Your task to perform on an android device: Add lg ultragear to the cart on bestbuy Image 0: 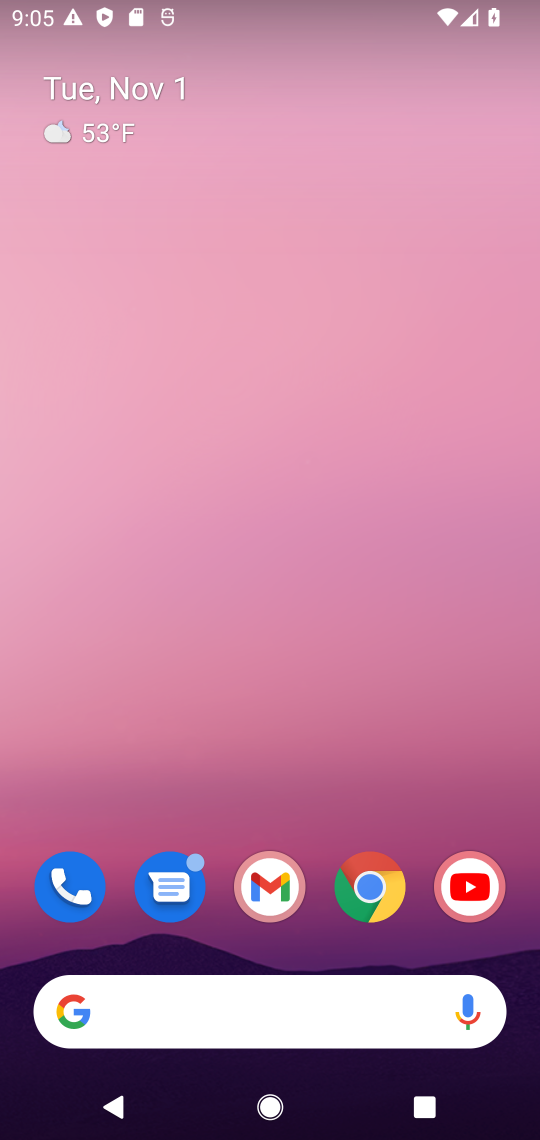
Step 0: drag from (291, 994) to (308, 305)
Your task to perform on an android device: Add lg ultragear to the cart on bestbuy Image 1: 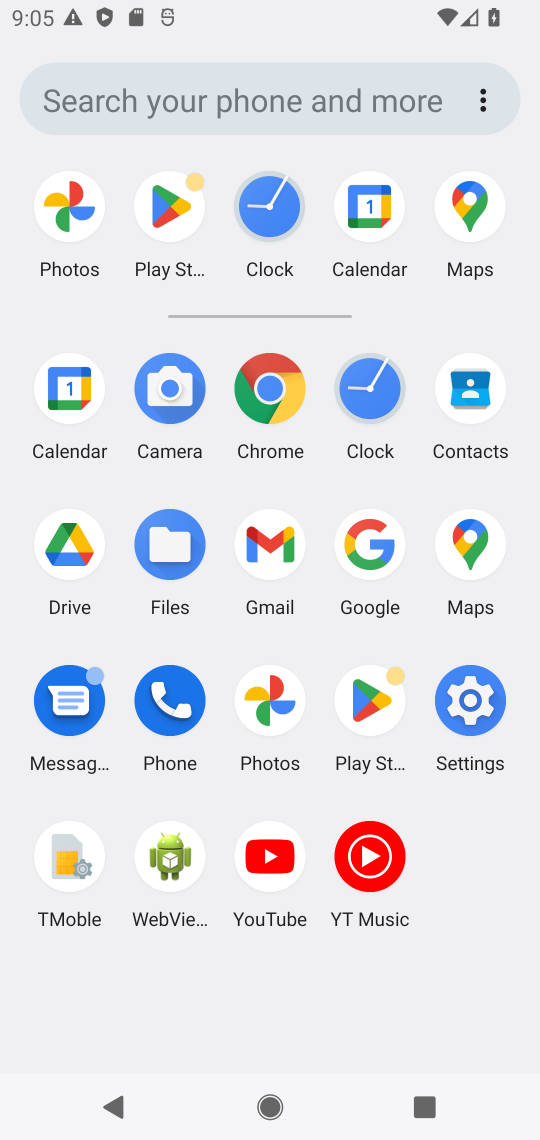
Step 1: click (366, 533)
Your task to perform on an android device: Add lg ultragear to the cart on bestbuy Image 2: 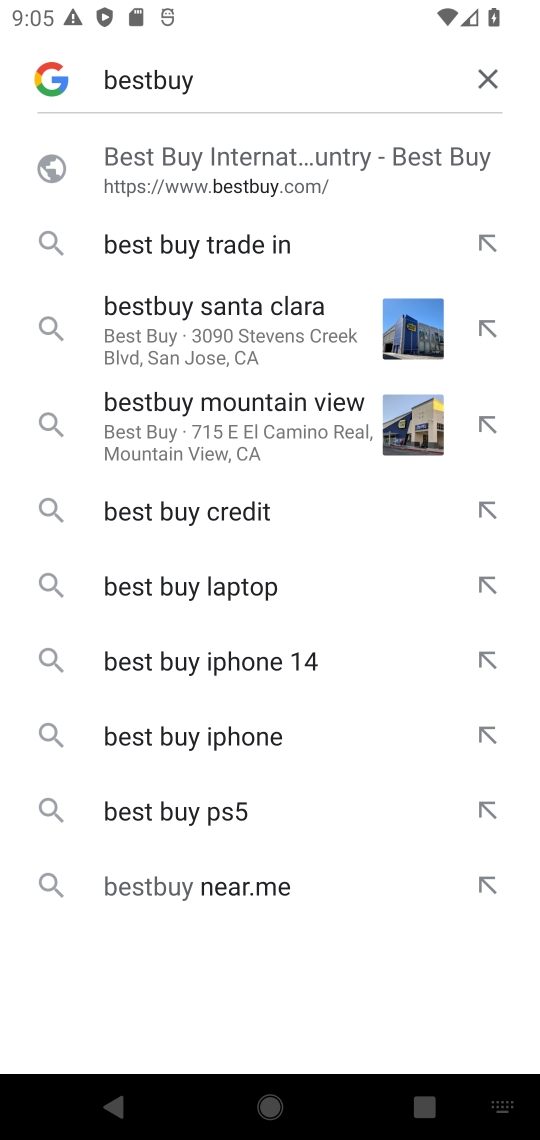
Step 2: click (476, 76)
Your task to perform on an android device: Add lg ultragear to the cart on bestbuy Image 3: 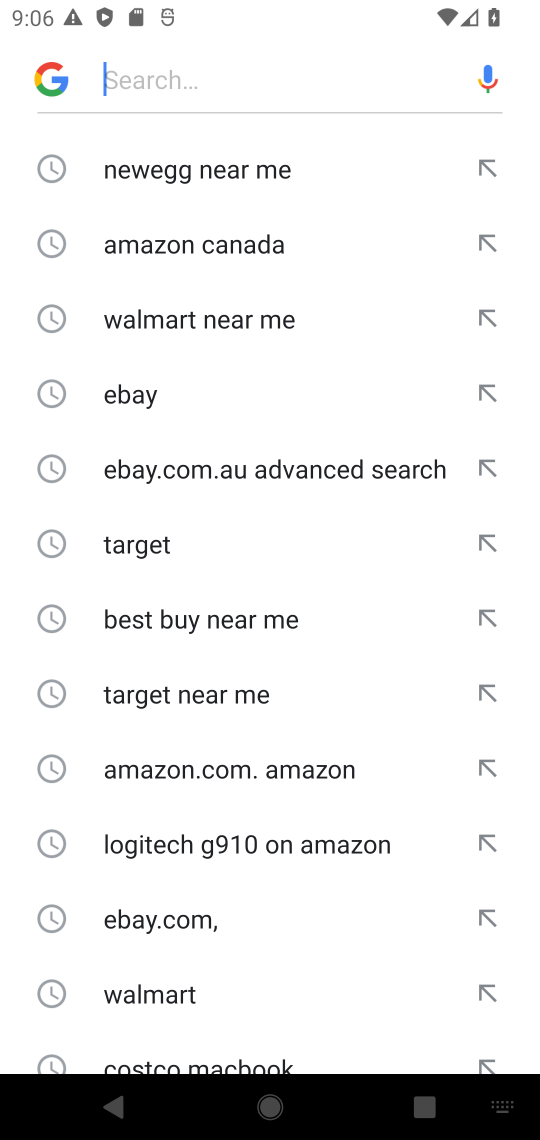
Step 3: click (213, 603)
Your task to perform on an android device: Add lg ultragear to the cart on bestbuy Image 4: 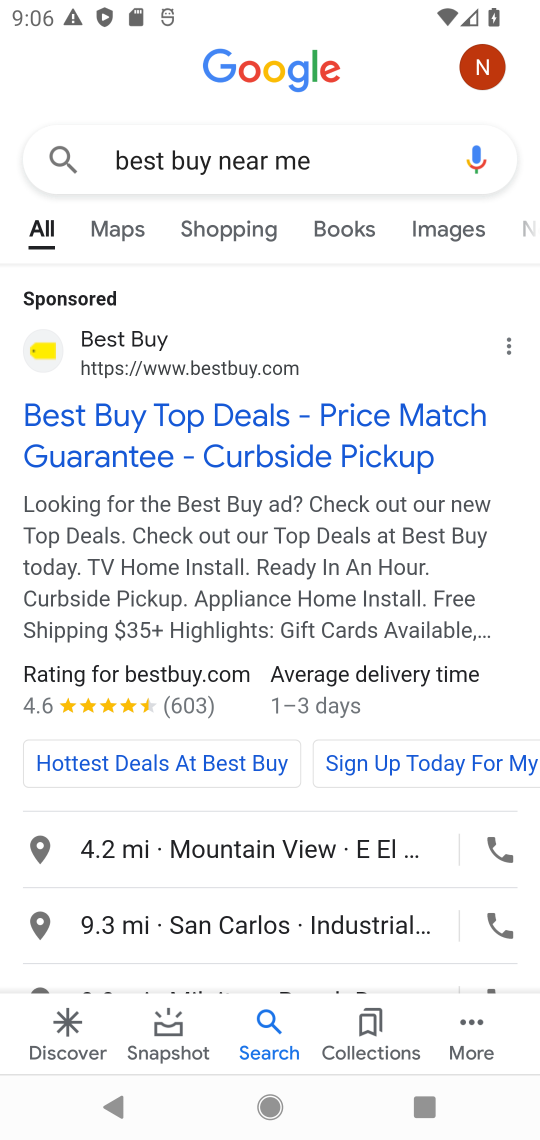
Step 4: click (32, 348)
Your task to perform on an android device: Add lg ultragear to the cart on bestbuy Image 5: 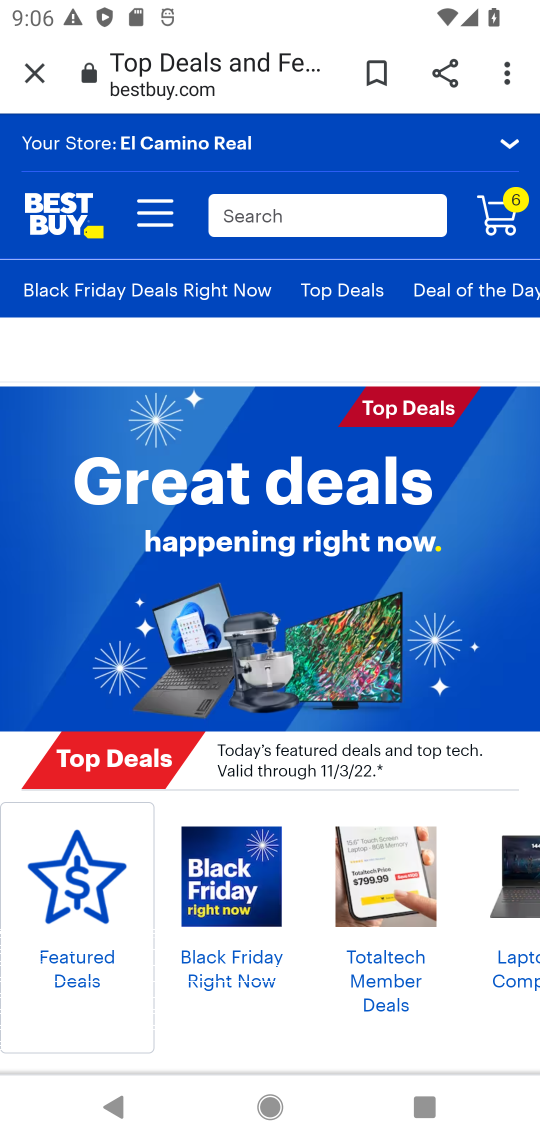
Step 5: click (332, 213)
Your task to perform on an android device: Add lg ultragear to the cart on bestbuy Image 6: 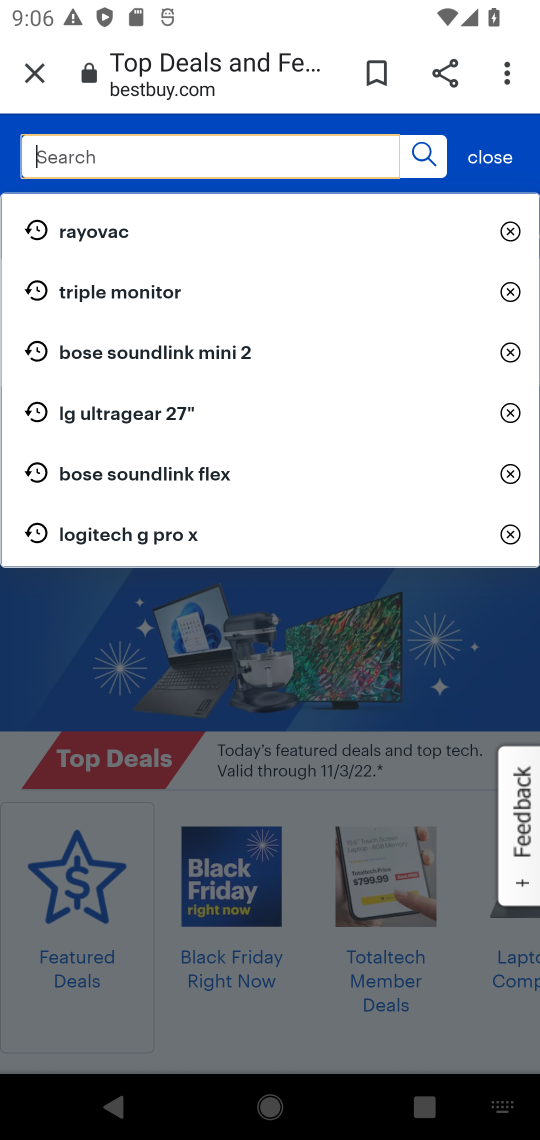
Step 6: click (293, 153)
Your task to perform on an android device: Add lg ultragear to the cart on bestbuy Image 7: 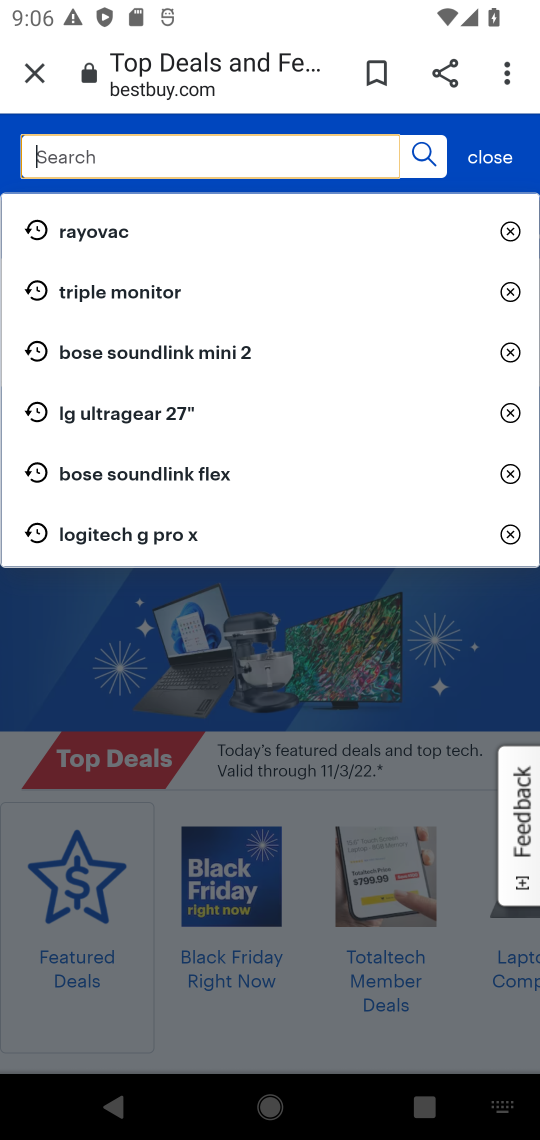
Step 7: type " lg ultragear "
Your task to perform on an android device: Add lg ultragear to the cart on bestbuy Image 8: 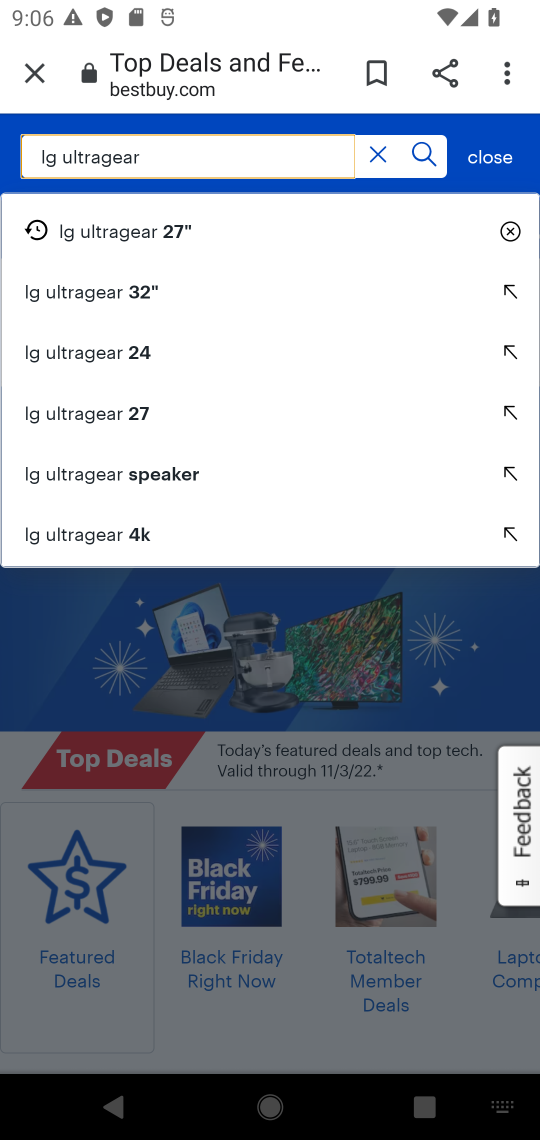
Step 8: click (103, 228)
Your task to perform on an android device: Add lg ultragear to the cart on bestbuy Image 9: 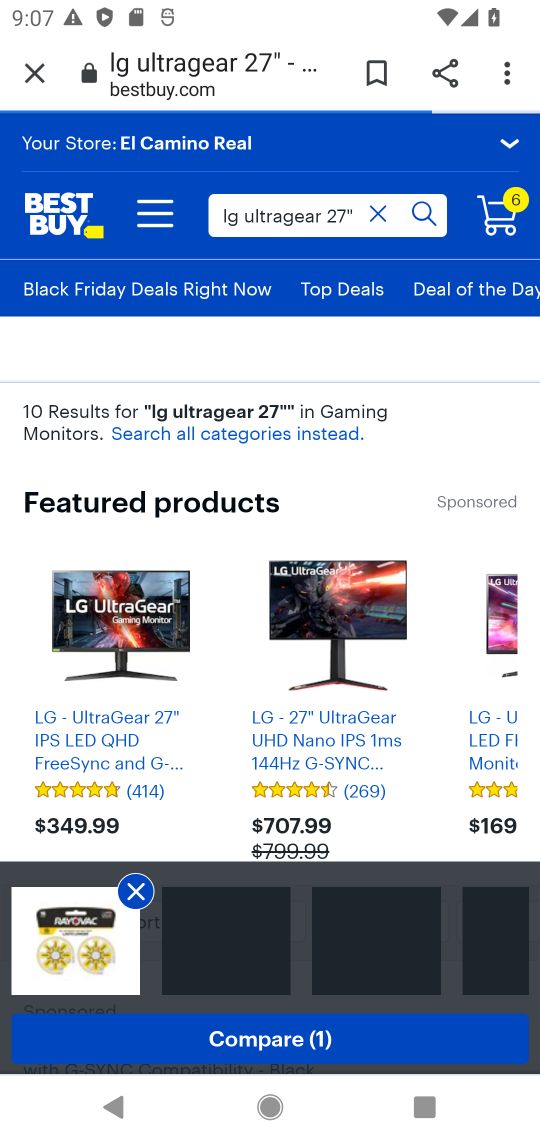
Step 9: drag from (320, 997) to (336, 401)
Your task to perform on an android device: Add lg ultragear to the cart on bestbuy Image 10: 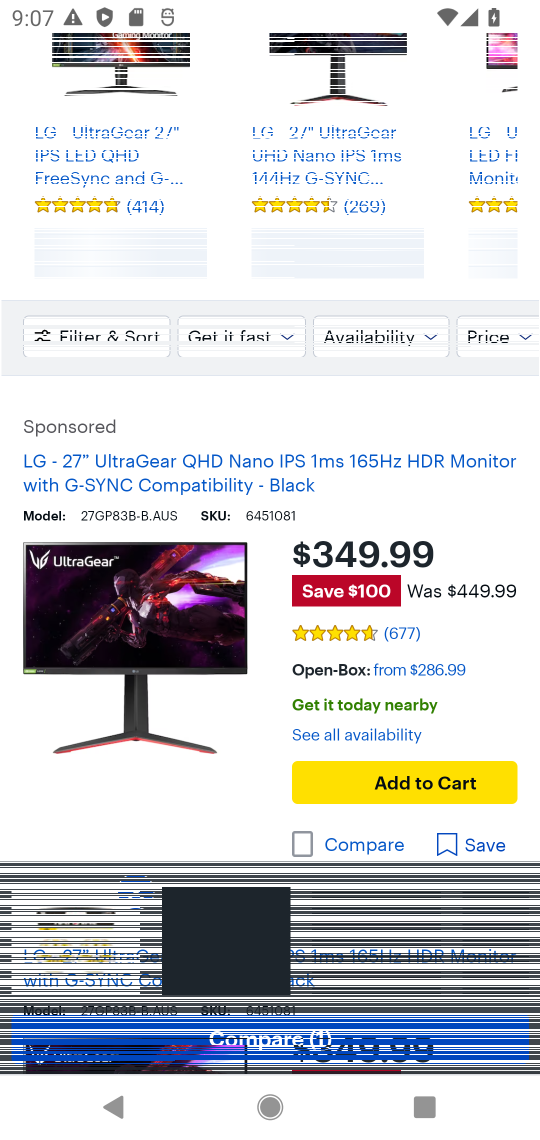
Step 10: click (391, 781)
Your task to perform on an android device: Add lg ultragear to the cart on bestbuy Image 11: 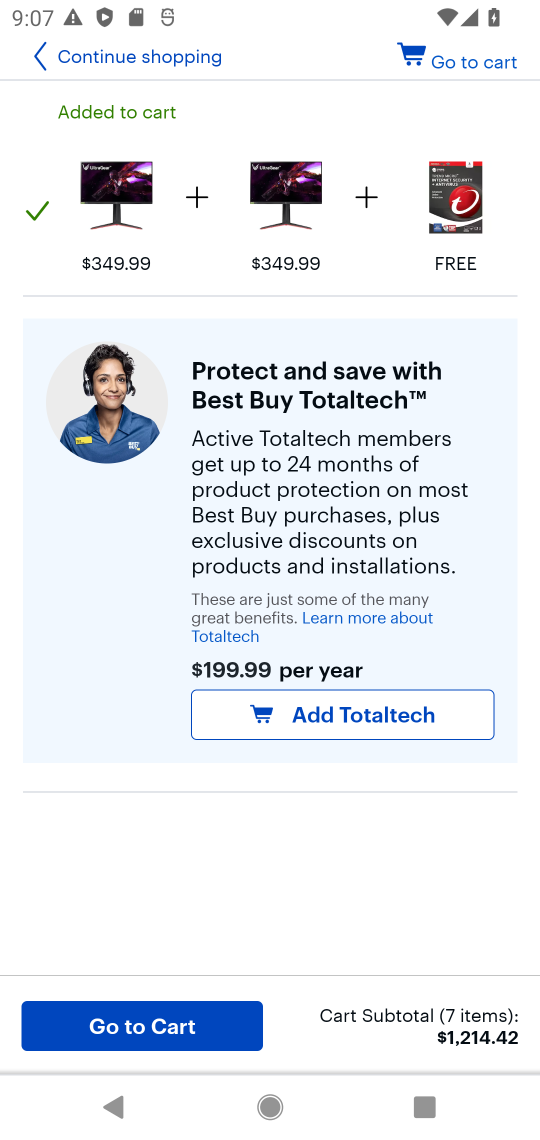
Step 11: drag from (227, 382) to (268, 833)
Your task to perform on an android device: Add lg ultragear to the cart on bestbuy Image 12: 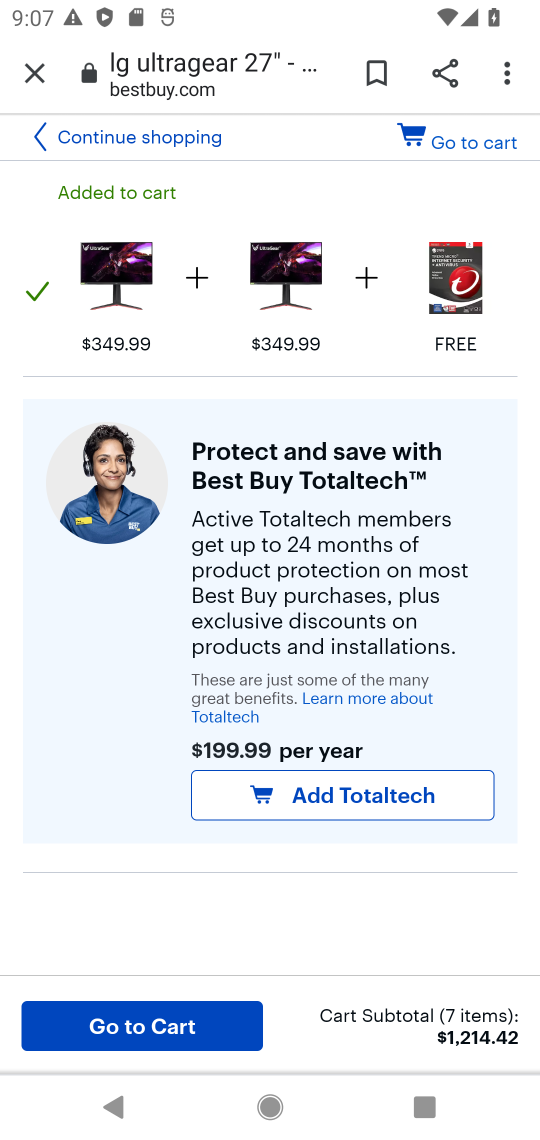
Step 12: press back button
Your task to perform on an android device: Add lg ultragear to the cart on bestbuy Image 13: 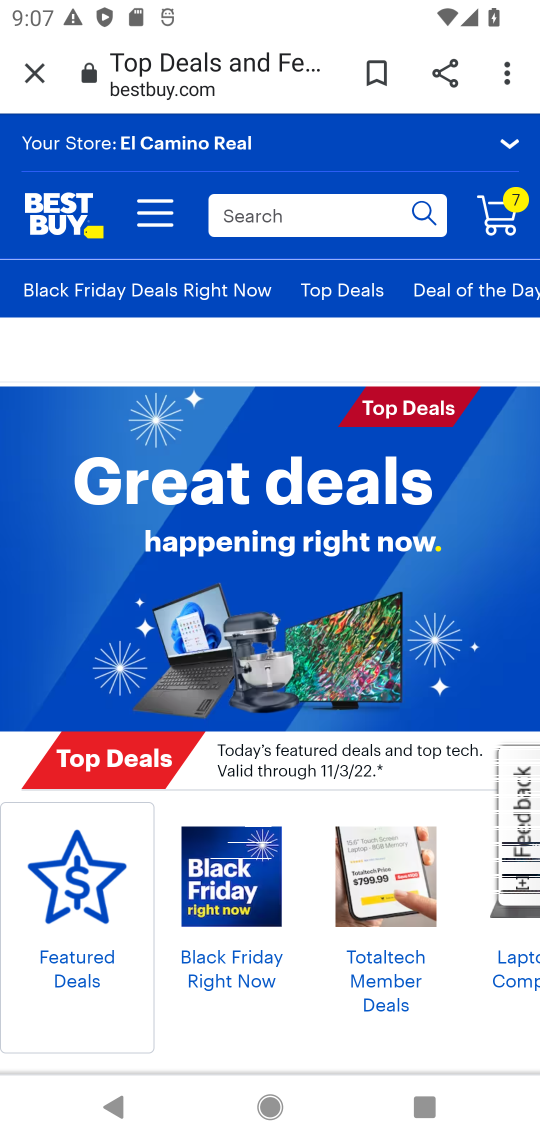
Step 13: click (365, 210)
Your task to perform on an android device: Add lg ultragear to the cart on bestbuy Image 14: 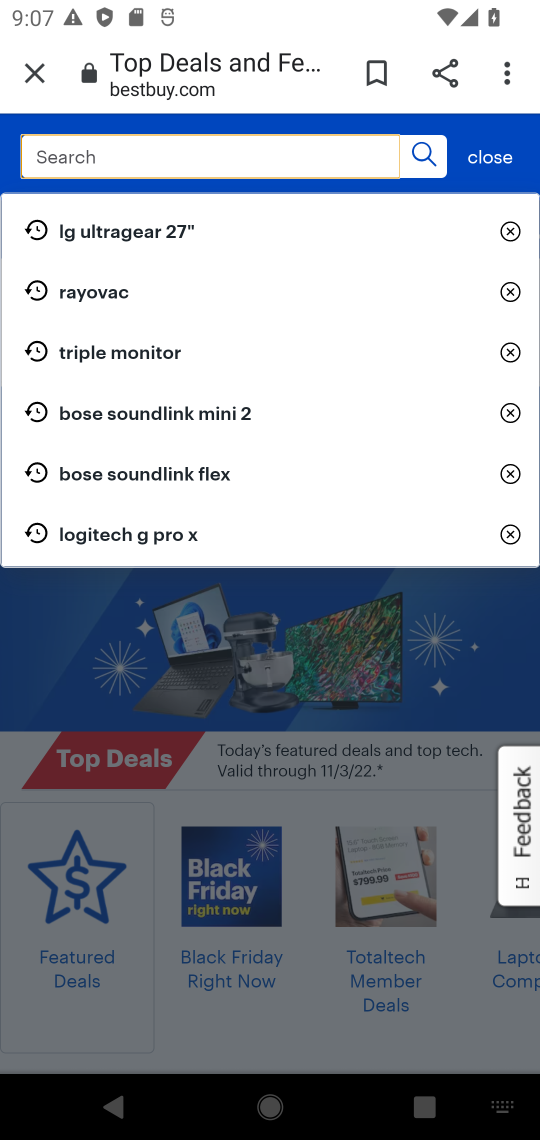
Step 14: click (91, 227)
Your task to perform on an android device: Add lg ultragear to the cart on bestbuy Image 15: 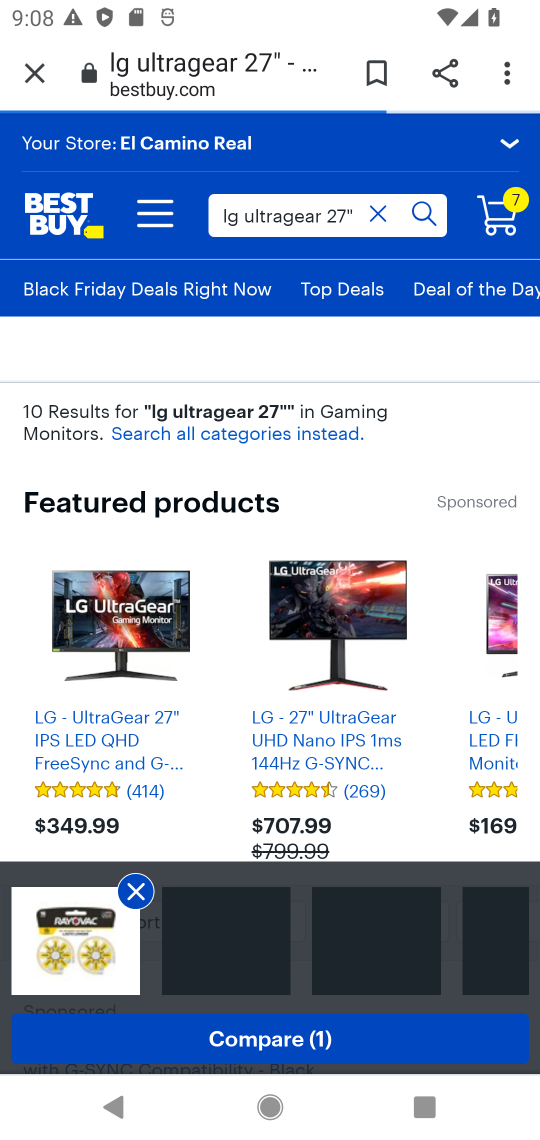
Step 15: click (113, 652)
Your task to perform on an android device: Add lg ultragear to the cart on bestbuy Image 16: 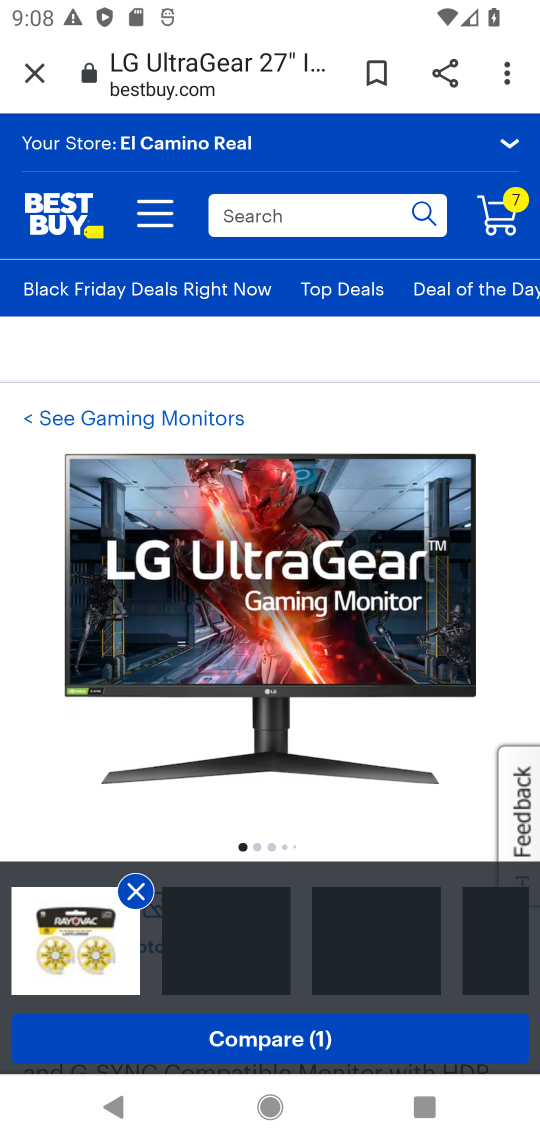
Step 16: click (125, 900)
Your task to perform on an android device: Add lg ultragear to the cart on bestbuy Image 17: 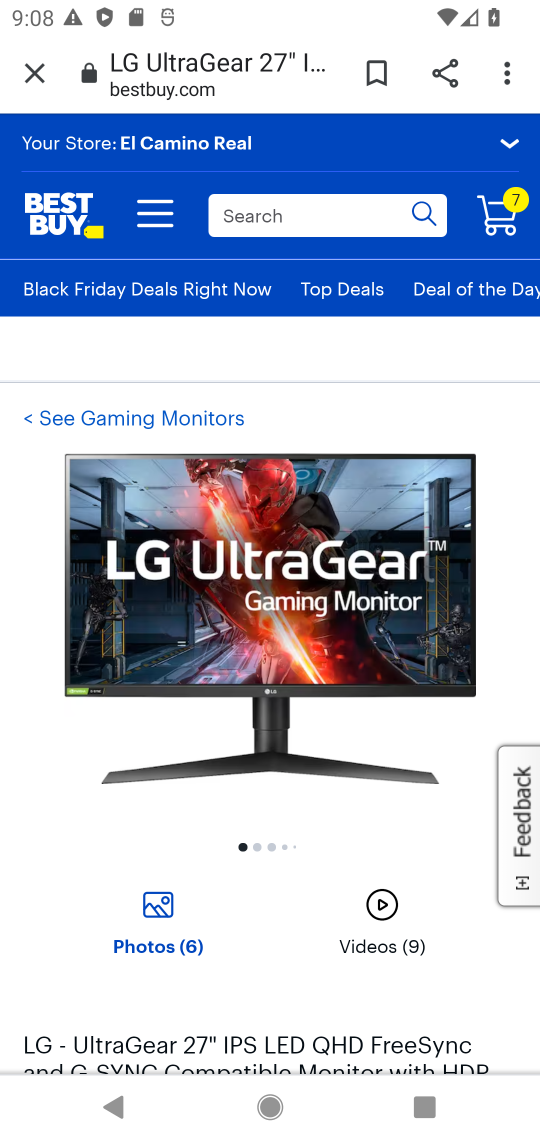
Step 17: drag from (312, 799) to (384, 308)
Your task to perform on an android device: Add lg ultragear to the cart on bestbuy Image 18: 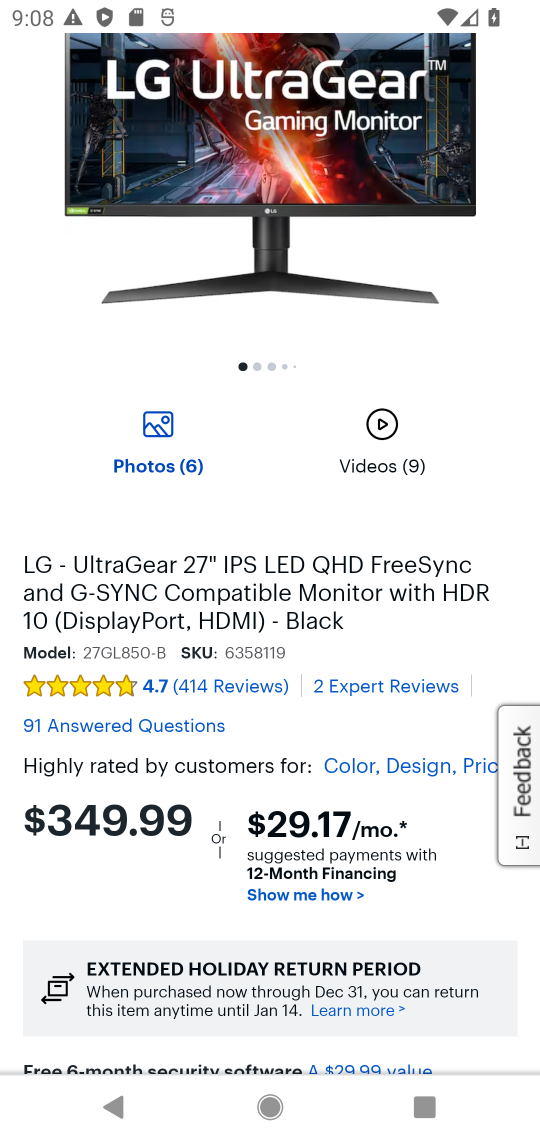
Step 18: drag from (292, 912) to (323, 481)
Your task to perform on an android device: Add lg ultragear to the cart on bestbuy Image 19: 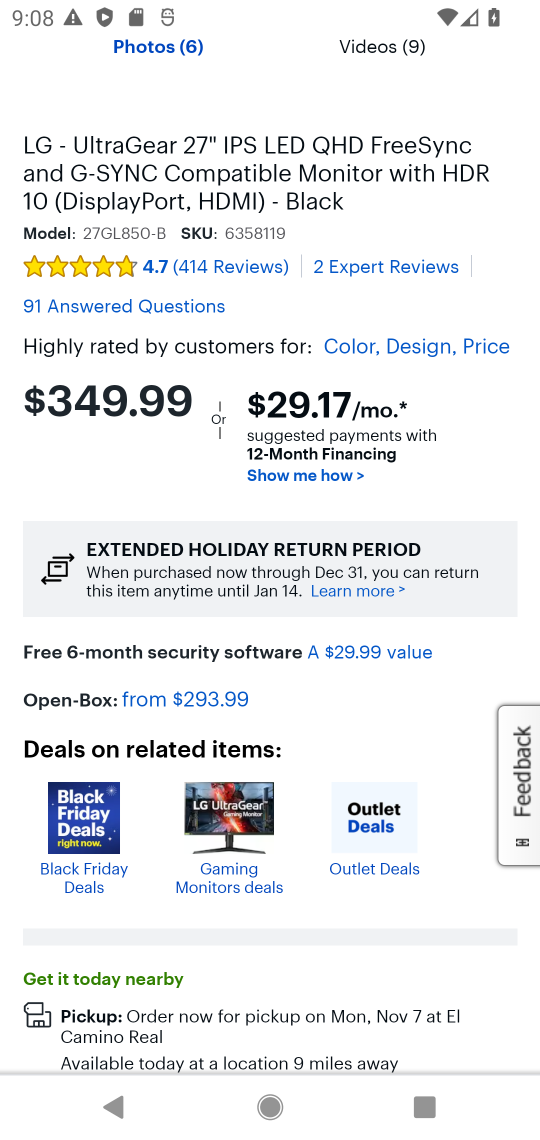
Step 19: drag from (323, 944) to (397, 162)
Your task to perform on an android device: Add lg ultragear to the cart on bestbuy Image 20: 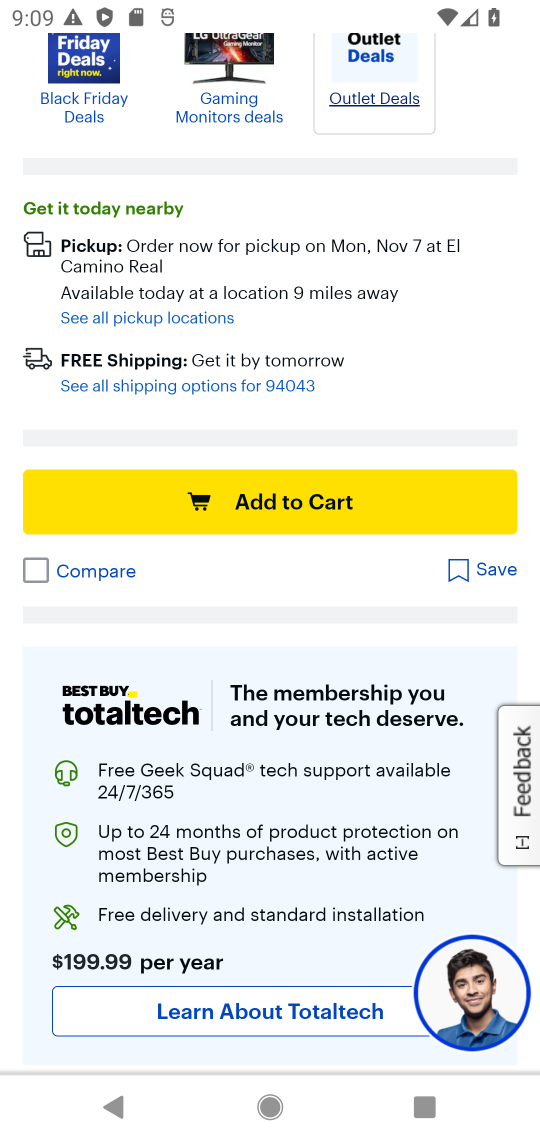
Step 20: click (280, 491)
Your task to perform on an android device: Add lg ultragear to the cart on bestbuy Image 21: 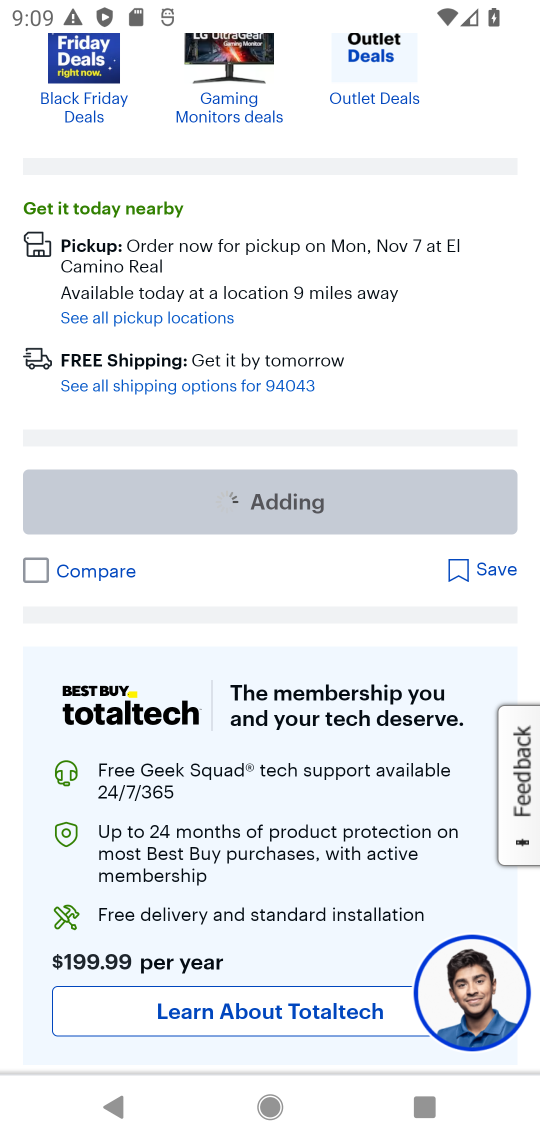
Step 21: task complete